Your task to perform on an android device: Go to network settings Image 0: 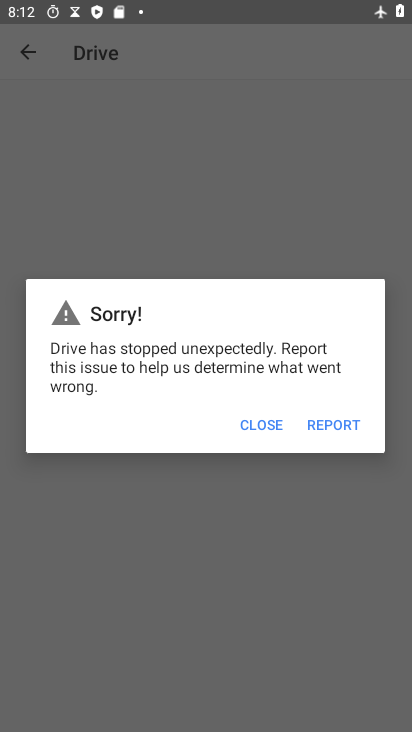
Step 0: press home button
Your task to perform on an android device: Go to network settings Image 1: 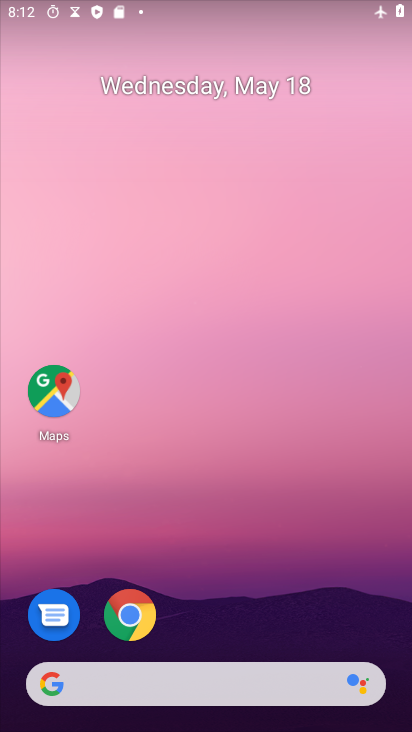
Step 1: drag from (241, 505) to (216, 72)
Your task to perform on an android device: Go to network settings Image 2: 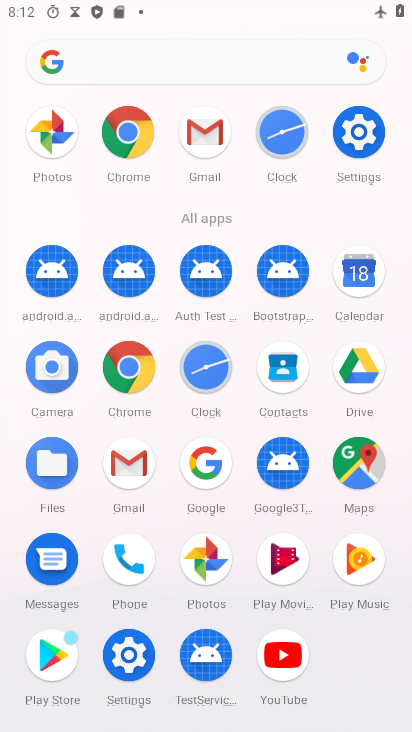
Step 2: click (354, 132)
Your task to perform on an android device: Go to network settings Image 3: 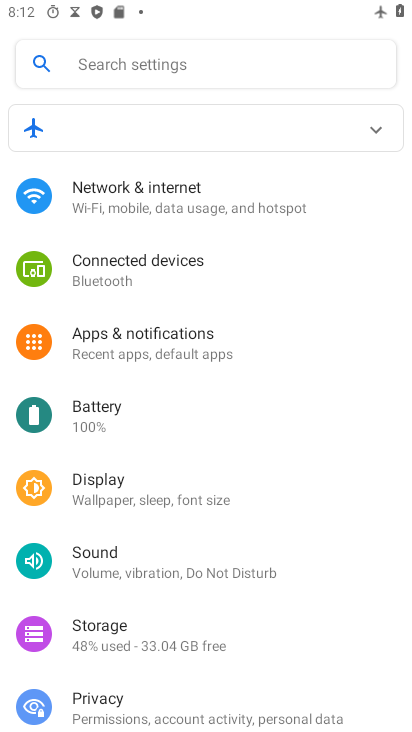
Step 3: click (169, 203)
Your task to perform on an android device: Go to network settings Image 4: 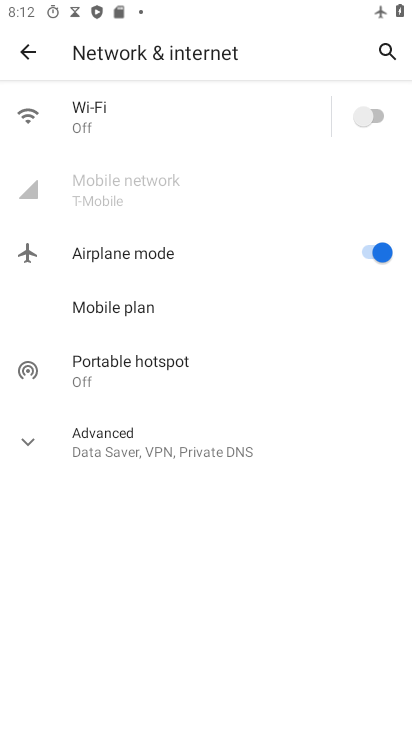
Step 4: task complete